Your task to perform on an android device: Go to Reddit.com Image 0: 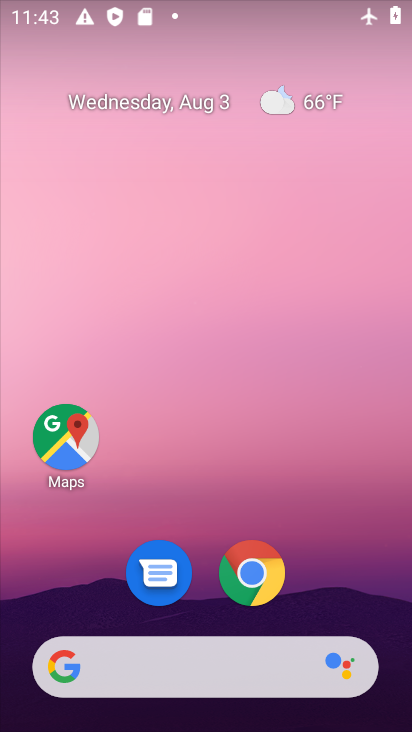
Step 0: drag from (323, 559) to (348, 74)
Your task to perform on an android device: Go to Reddit.com Image 1: 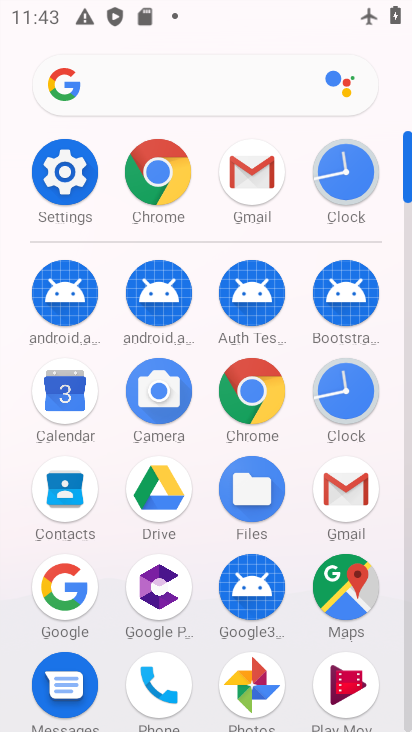
Step 1: click (257, 392)
Your task to perform on an android device: Go to Reddit.com Image 2: 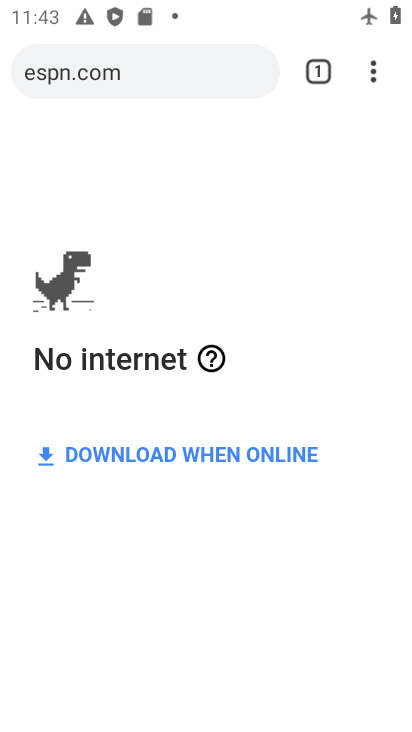
Step 2: click (157, 67)
Your task to perform on an android device: Go to Reddit.com Image 3: 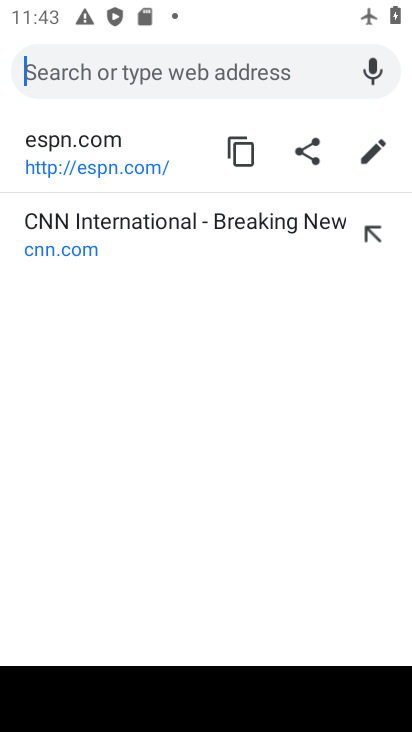
Step 3: type "reddit.com"
Your task to perform on an android device: Go to Reddit.com Image 4: 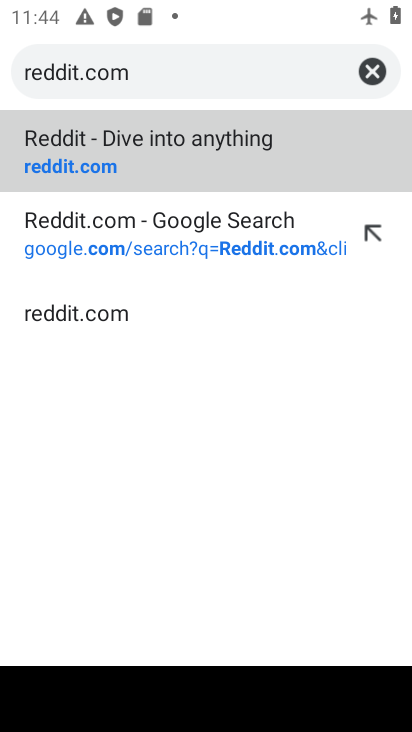
Step 4: click (180, 162)
Your task to perform on an android device: Go to Reddit.com Image 5: 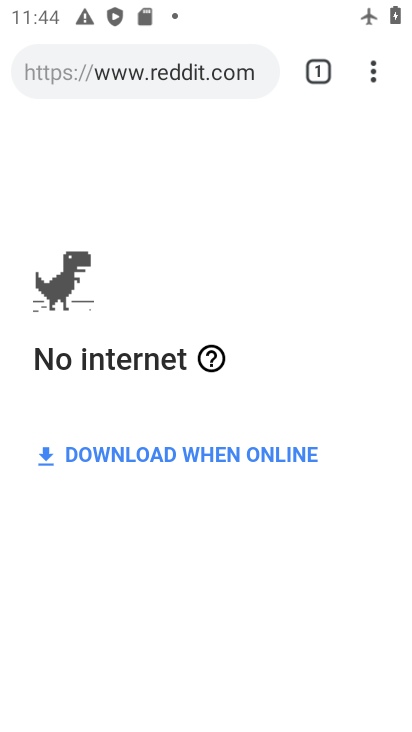
Step 5: task complete